Your task to perform on an android device: turn on data saver in the chrome app Image 0: 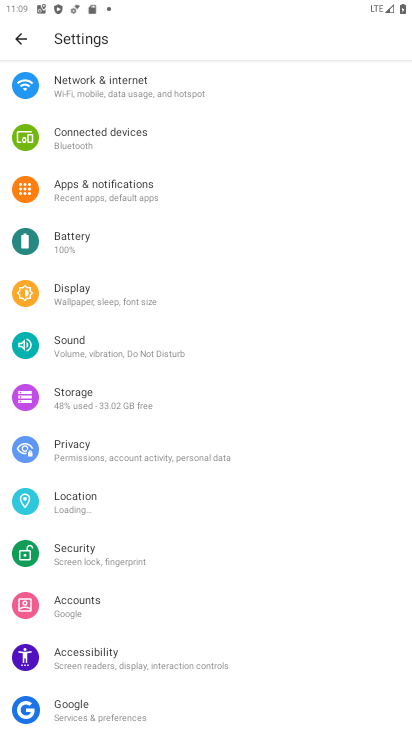
Step 0: press home button
Your task to perform on an android device: turn on data saver in the chrome app Image 1: 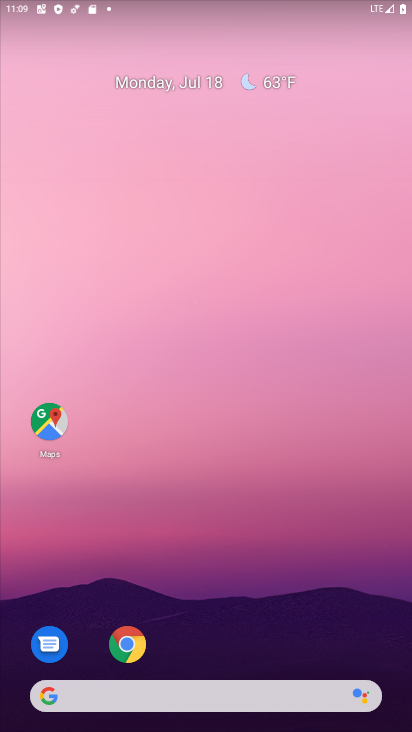
Step 1: click (138, 639)
Your task to perform on an android device: turn on data saver in the chrome app Image 2: 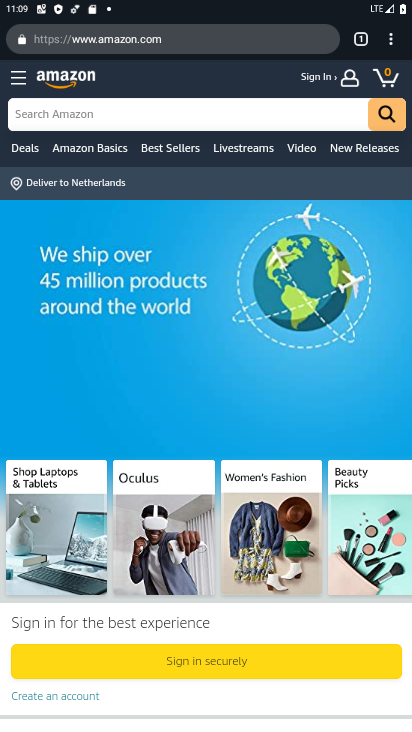
Step 2: click (388, 43)
Your task to perform on an android device: turn on data saver in the chrome app Image 3: 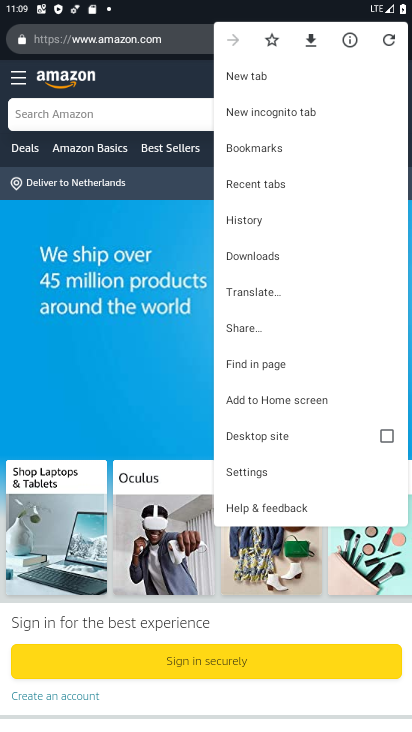
Step 3: click (253, 470)
Your task to perform on an android device: turn on data saver in the chrome app Image 4: 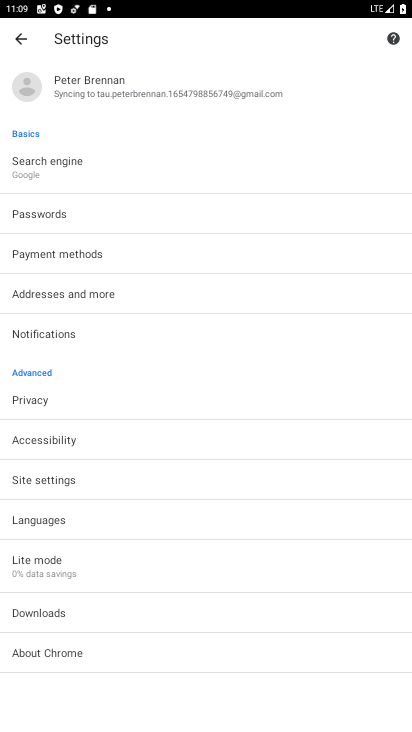
Step 4: click (71, 571)
Your task to perform on an android device: turn on data saver in the chrome app Image 5: 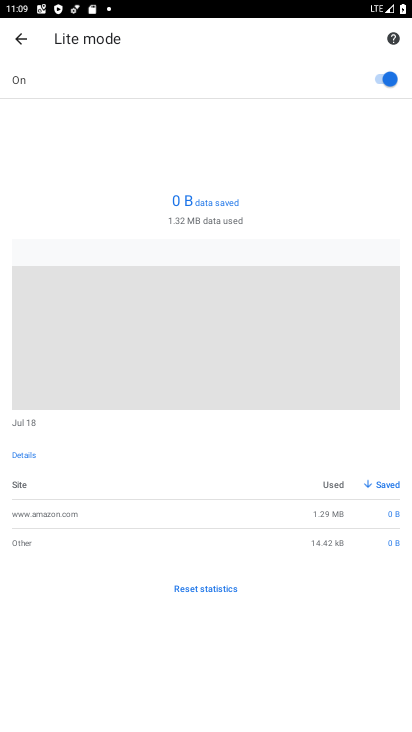
Step 5: task complete